Your task to perform on an android device: Do I have any events this weekend? Image 0: 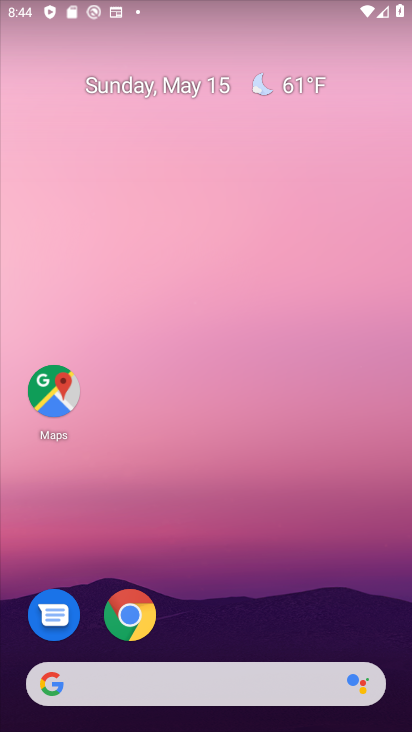
Step 0: drag from (199, 576) to (138, 9)
Your task to perform on an android device: Do I have any events this weekend? Image 1: 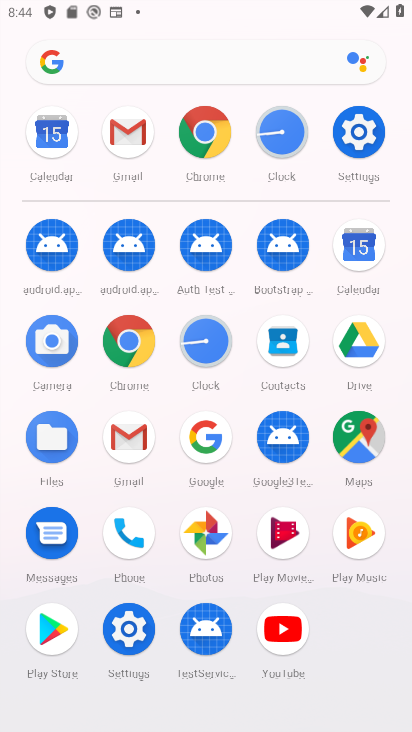
Step 1: drag from (10, 602) to (0, 332)
Your task to perform on an android device: Do I have any events this weekend? Image 2: 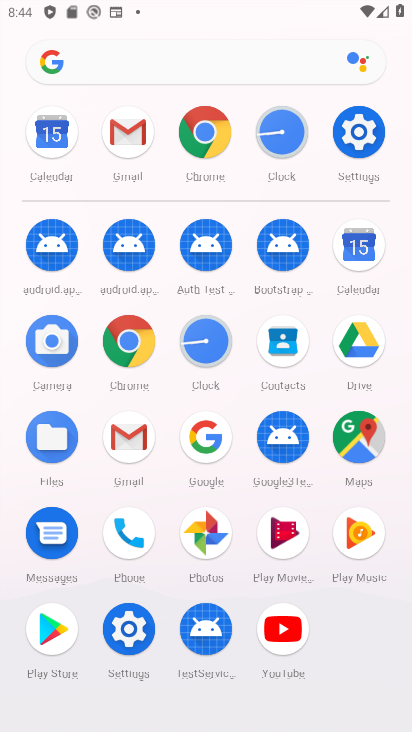
Step 2: click (350, 240)
Your task to perform on an android device: Do I have any events this weekend? Image 3: 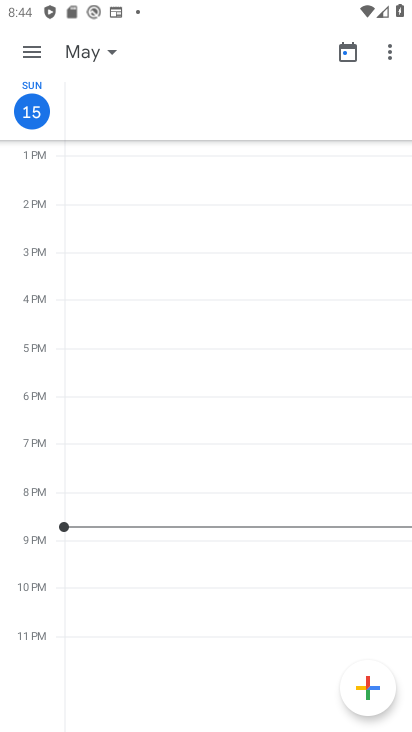
Step 3: click (30, 52)
Your task to perform on an android device: Do I have any events this weekend? Image 4: 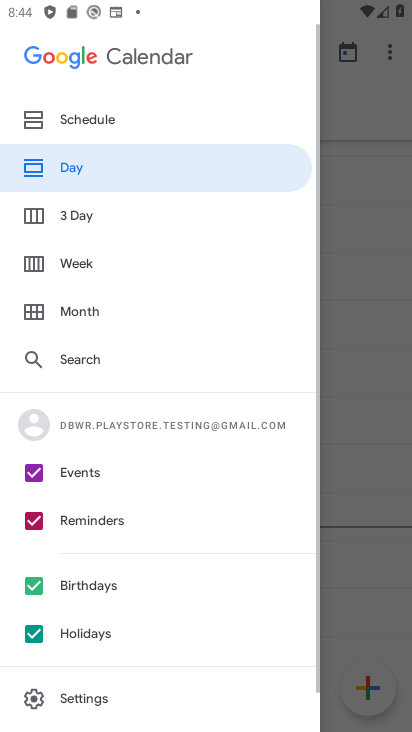
Step 4: click (89, 260)
Your task to perform on an android device: Do I have any events this weekend? Image 5: 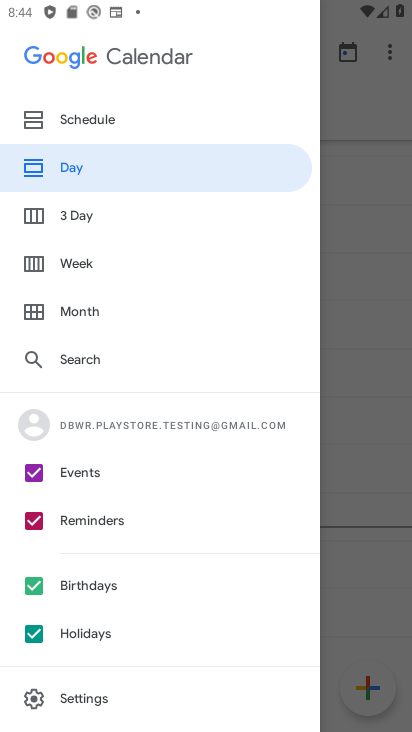
Step 5: click (120, 178)
Your task to perform on an android device: Do I have any events this weekend? Image 6: 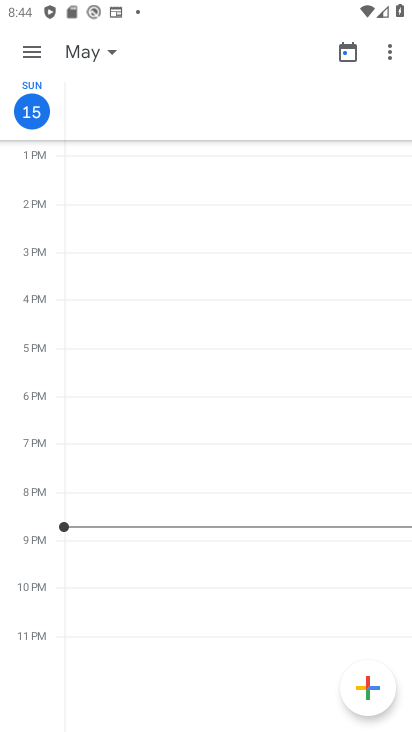
Step 6: click (27, 52)
Your task to perform on an android device: Do I have any events this weekend? Image 7: 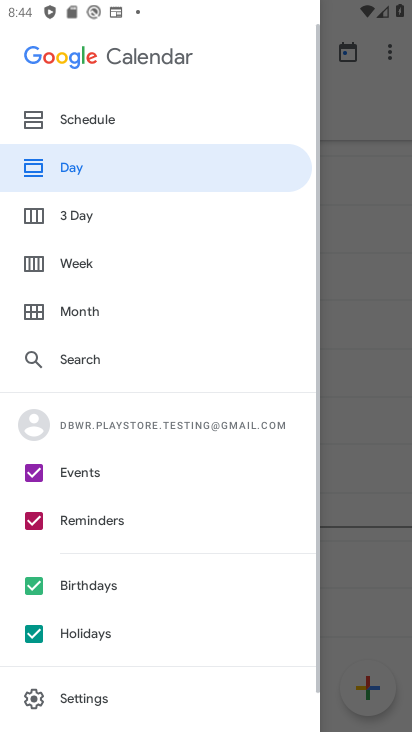
Step 7: click (83, 261)
Your task to perform on an android device: Do I have any events this weekend? Image 8: 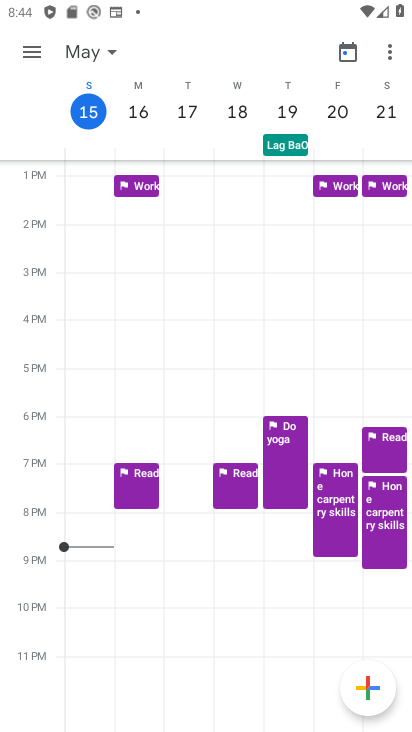
Step 8: click (341, 107)
Your task to perform on an android device: Do I have any events this weekend? Image 9: 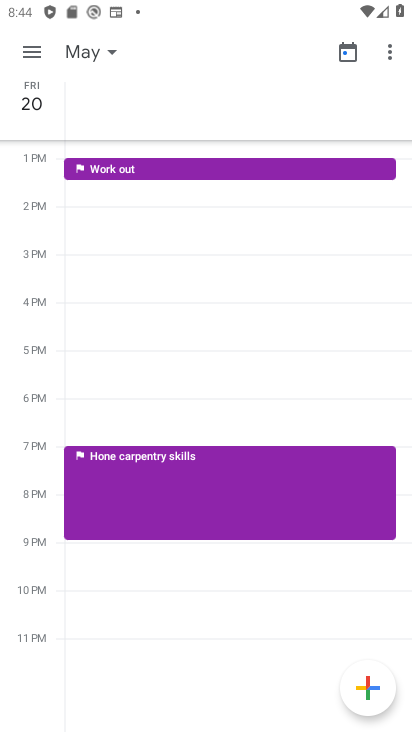
Step 9: task complete